Your task to perform on an android device: remove spam from my inbox in the gmail app Image 0: 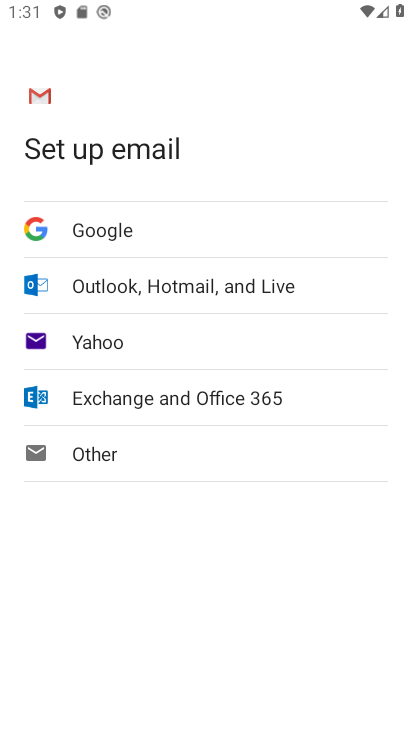
Step 0: press back button
Your task to perform on an android device: remove spam from my inbox in the gmail app Image 1: 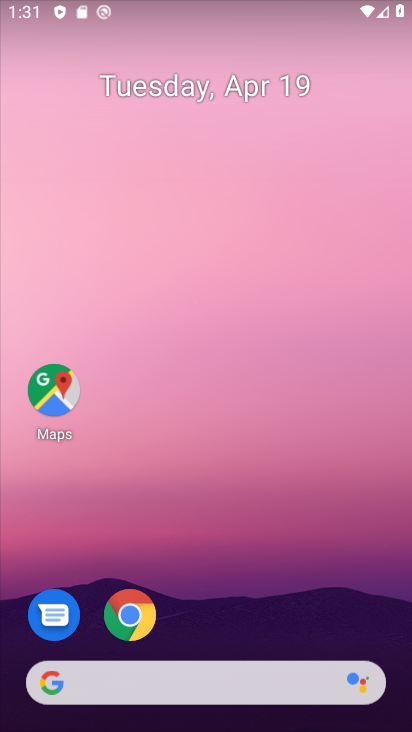
Step 1: drag from (196, 635) to (204, 599)
Your task to perform on an android device: remove spam from my inbox in the gmail app Image 2: 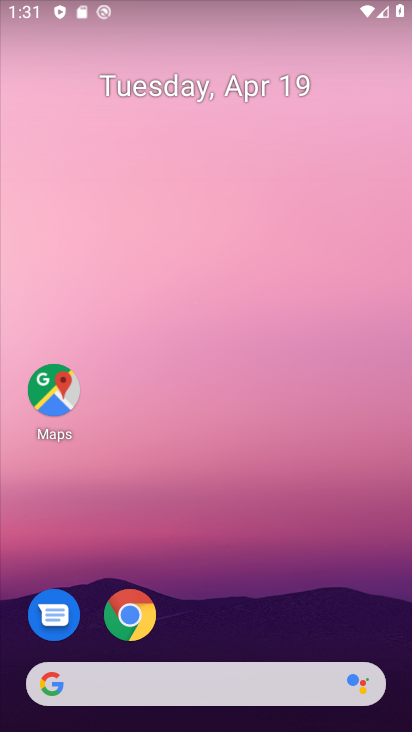
Step 2: drag from (200, 618) to (284, 327)
Your task to perform on an android device: remove spam from my inbox in the gmail app Image 3: 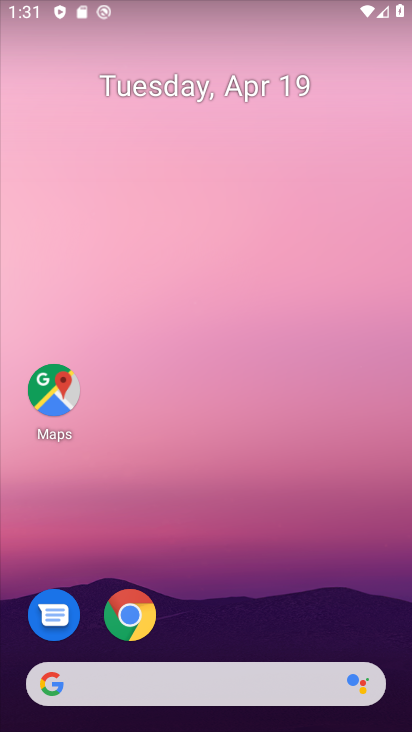
Step 3: drag from (210, 644) to (303, 305)
Your task to perform on an android device: remove spam from my inbox in the gmail app Image 4: 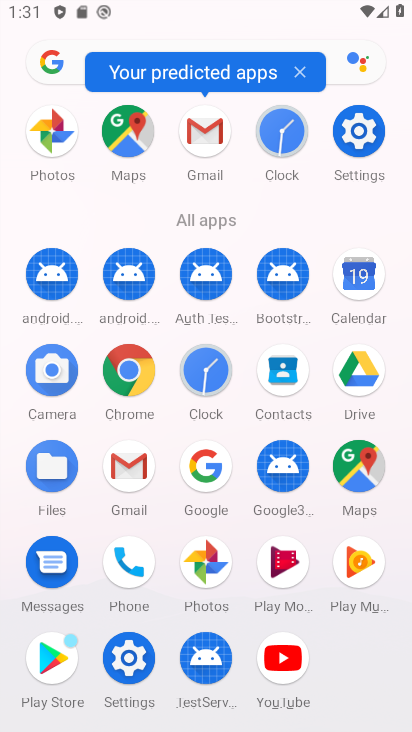
Step 4: drag from (169, 584) to (160, 206)
Your task to perform on an android device: remove spam from my inbox in the gmail app Image 5: 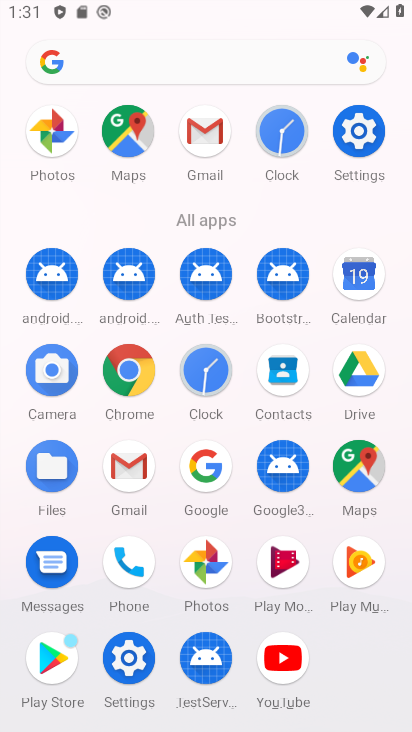
Step 5: click (122, 479)
Your task to perform on an android device: remove spam from my inbox in the gmail app Image 6: 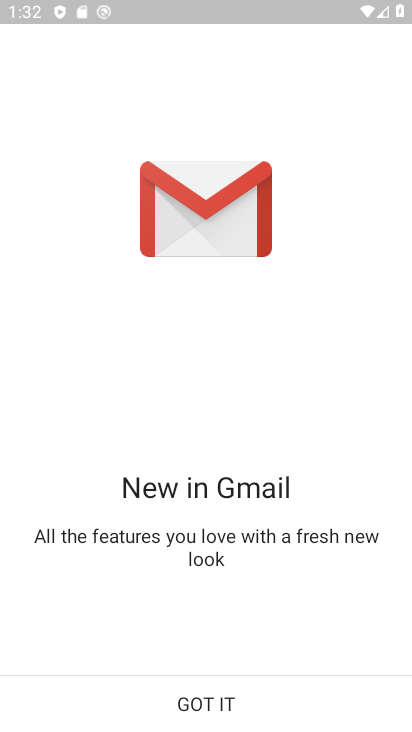
Step 6: click (169, 700)
Your task to perform on an android device: remove spam from my inbox in the gmail app Image 7: 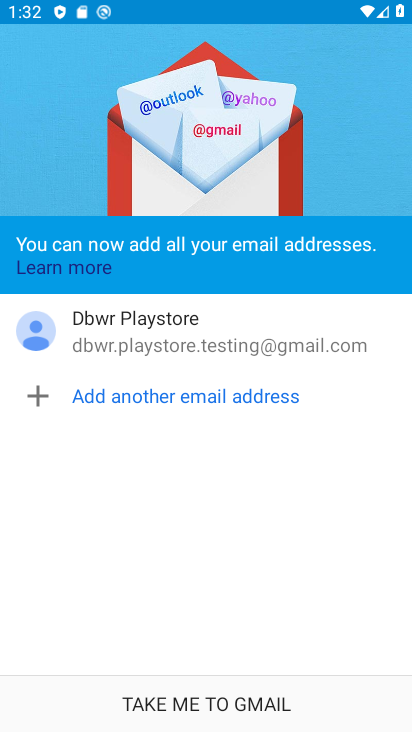
Step 7: drag from (137, 646) to (229, 360)
Your task to perform on an android device: remove spam from my inbox in the gmail app Image 8: 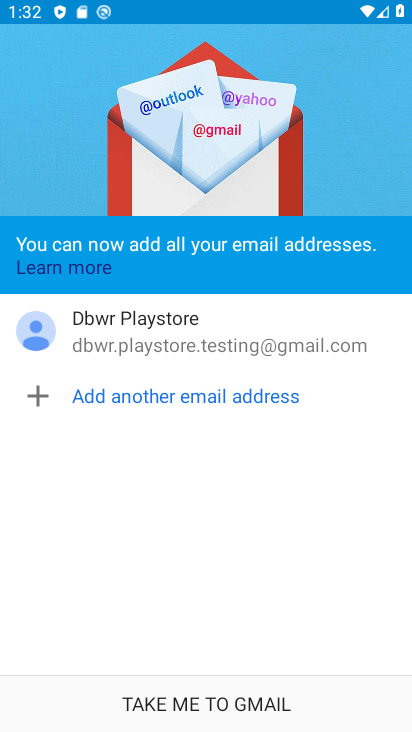
Step 8: click (209, 705)
Your task to perform on an android device: remove spam from my inbox in the gmail app Image 9: 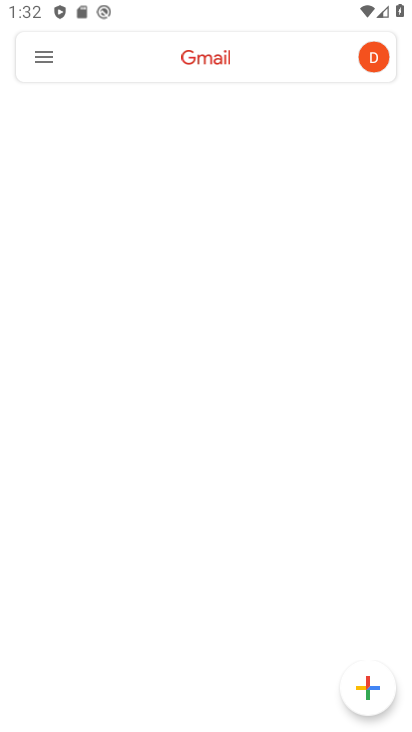
Step 9: drag from (241, 626) to (314, 281)
Your task to perform on an android device: remove spam from my inbox in the gmail app Image 10: 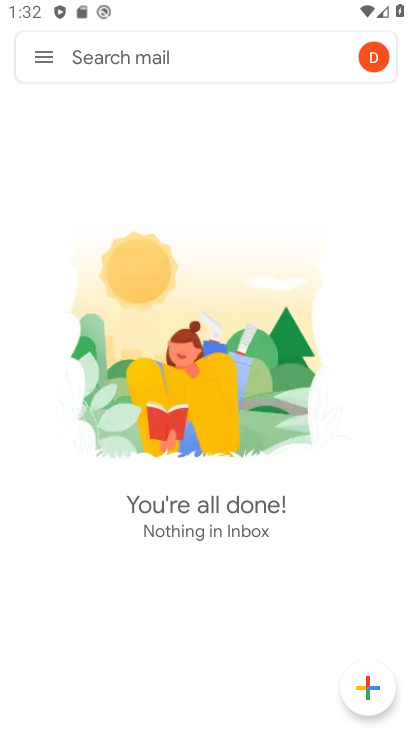
Step 10: click (31, 54)
Your task to perform on an android device: remove spam from my inbox in the gmail app Image 11: 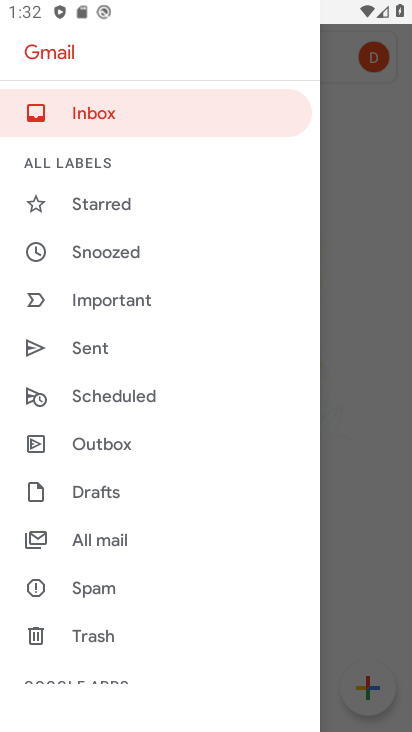
Step 11: click (107, 600)
Your task to perform on an android device: remove spam from my inbox in the gmail app Image 12: 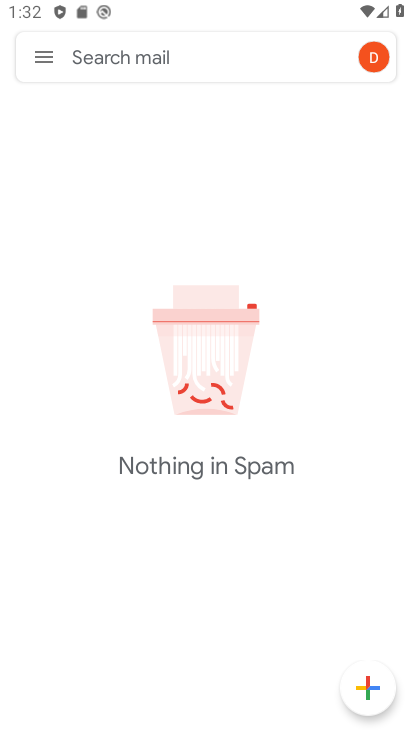
Step 12: drag from (214, 382) to (238, 146)
Your task to perform on an android device: remove spam from my inbox in the gmail app Image 13: 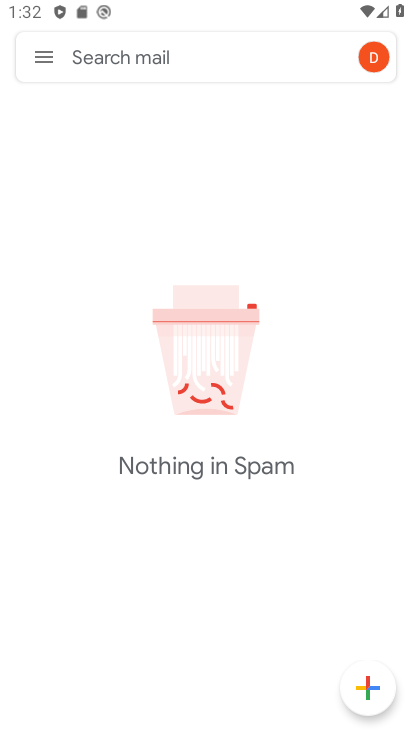
Step 13: click (35, 59)
Your task to perform on an android device: remove spam from my inbox in the gmail app Image 14: 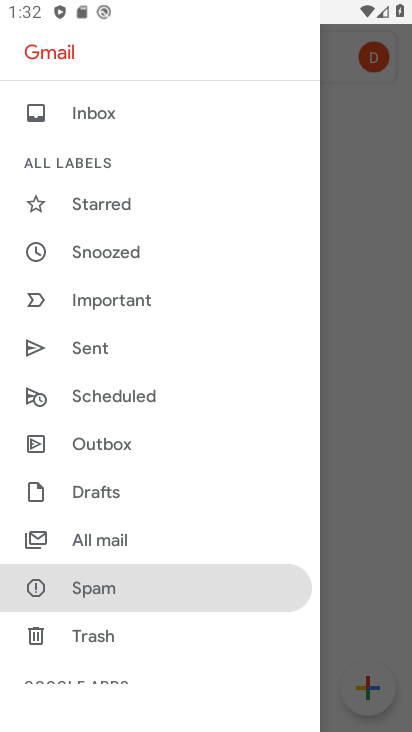
Step 14: click (119, 580)
Your task to perform on an android device: remove spam from my inbox in the gmail app Image 15: 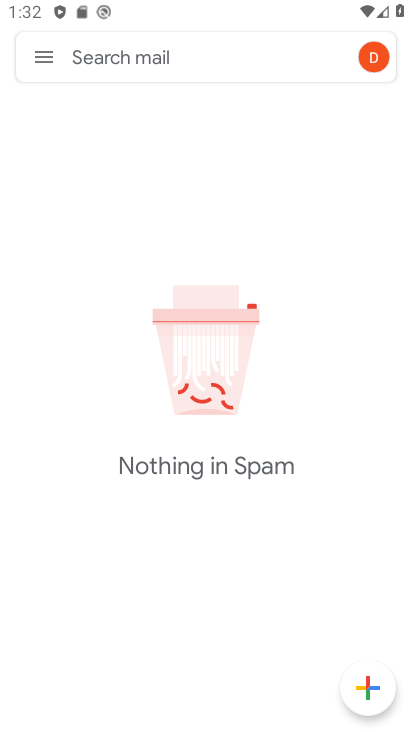
Step 15: task complete